Your task to perform on an android device: What's the weather today? Image 0: 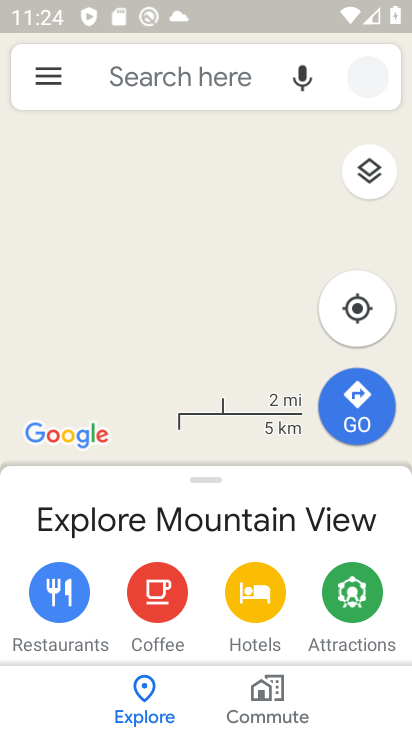
Step 0: press home button
Your task to perform on an android device: What's the weather today? Image 1: 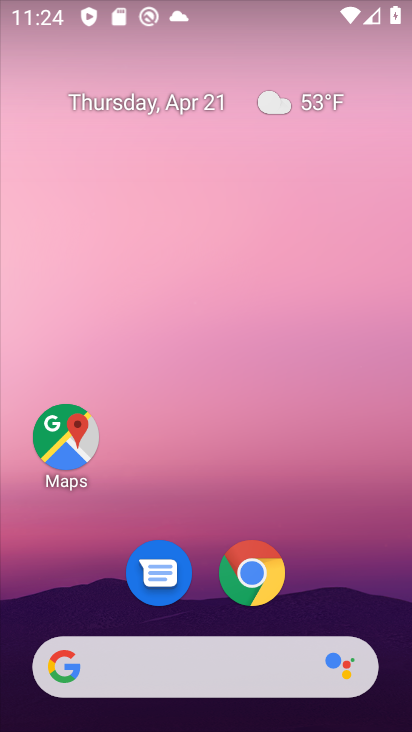
Step 1: click (322, 105)
Your task to perform on an android device: What's the weather today? Image 2: 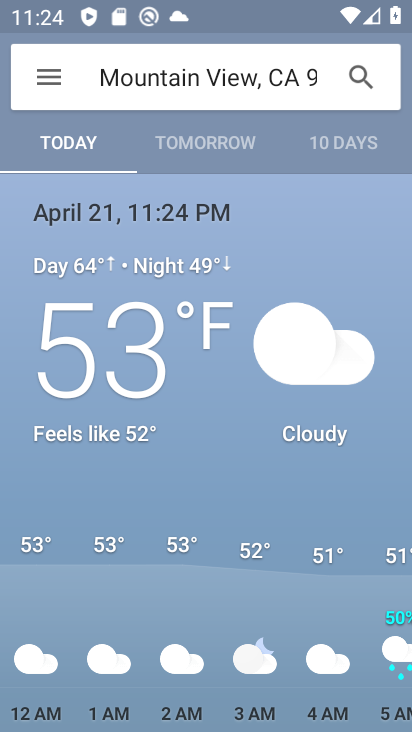
Step 2: task complete